Your task to perform on an android device: Show me popular games on the Play Store Image 0: 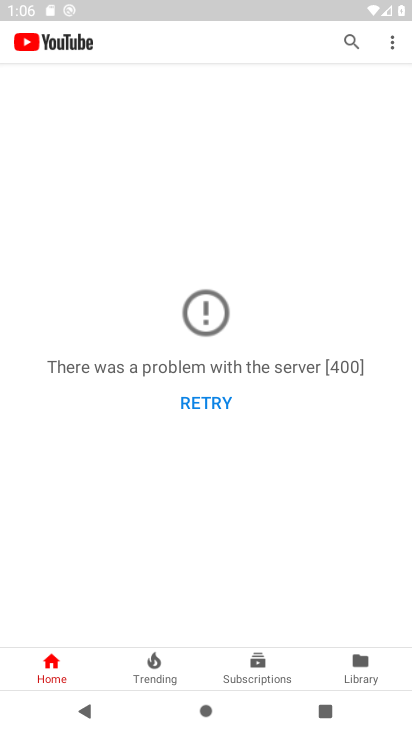
Step 0: press home button
Your task to perform on an android device: Show me popular games on the Play Store Image 1: 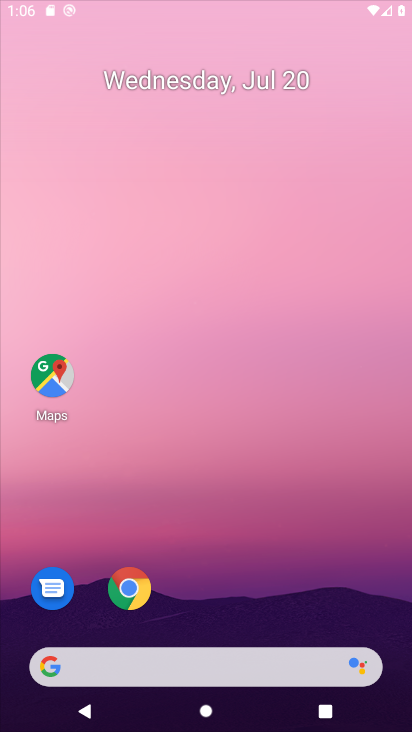
Step 1: drag from (370, 639) to (166, 32)
Your task to perform on an android device: Show me popular games on the Play Store Image 2: 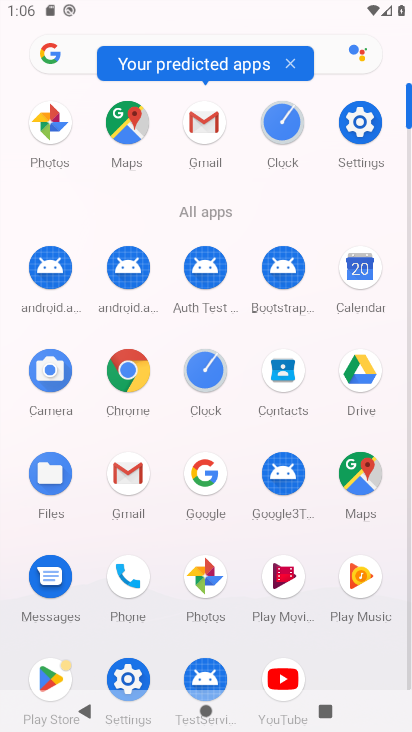
Step 2: click (51, 666)
Your task to perform on an android device: Show me popular games on the Play Store Image 3: 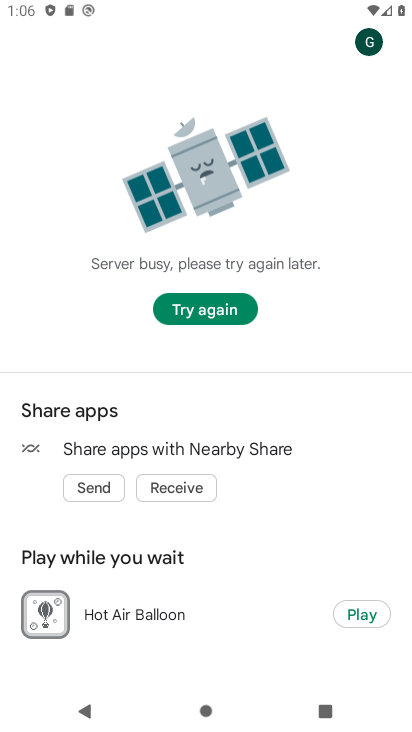
Step 3: task complete